Your task to perform on an android device: turn on priority inbox in the gmail app Image 0: 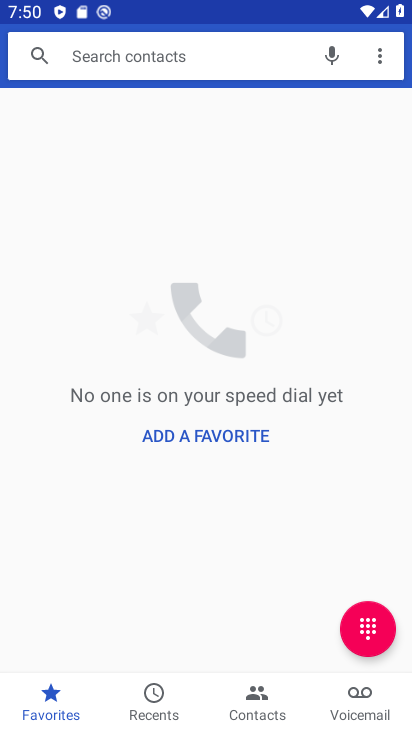
Step 0: press home button
Your task to perform on an android device: turn on priority inbox in the gmail app Image 1: 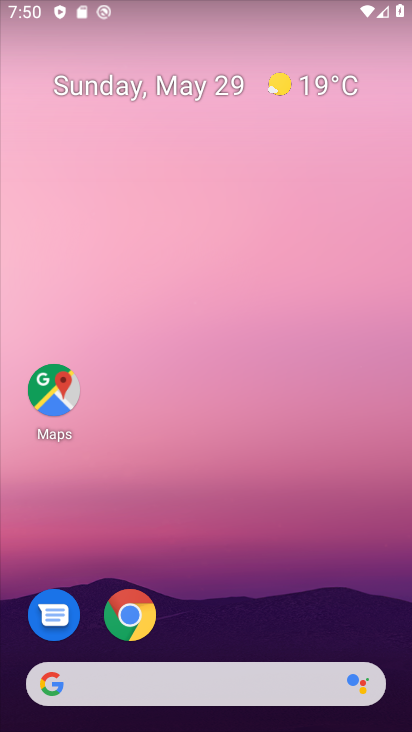
Step 1: drag from (112, 724) to (154, 67)
Your task to perform on an android device: turn on priority inbox in the gmail app Image 2: 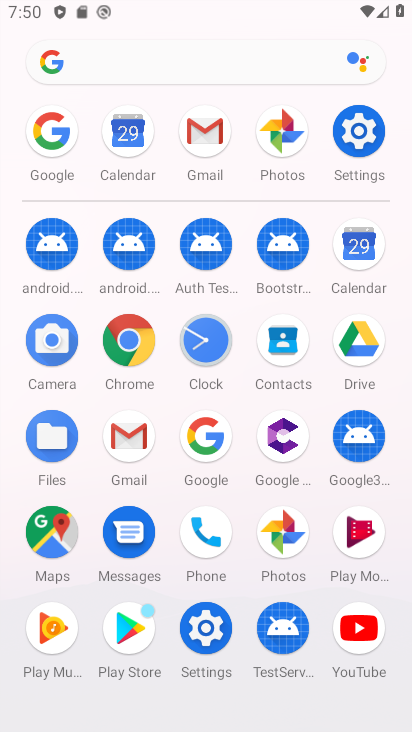
Step 2: click (131, 444)
Your task to perform on an android device: turn on priority inbox in the gmail app Image 3: 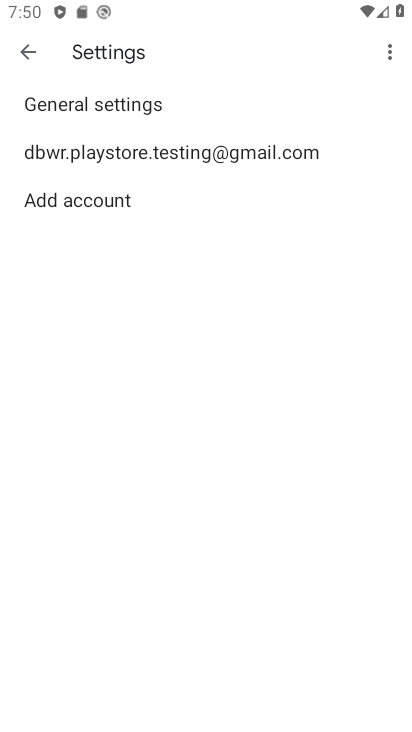
Step 3: click (82, 162)
Your task to perform on an android device: turn on priority inbox in the gmail app Image 4: 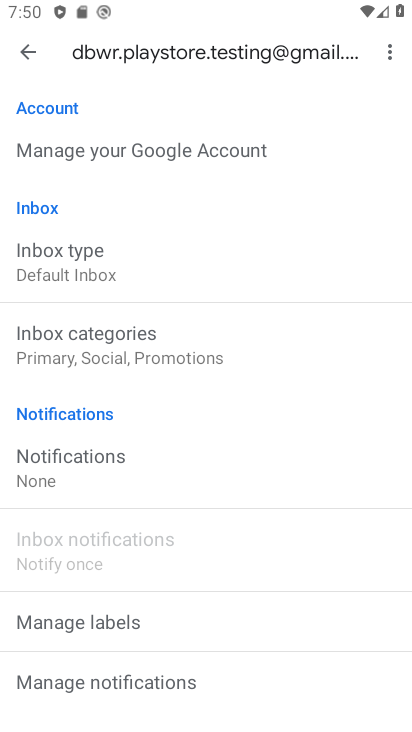
Step 4: click (116, 283)
Your task to perform on an android device: turn on priority inbox in the gmail app Image 5: 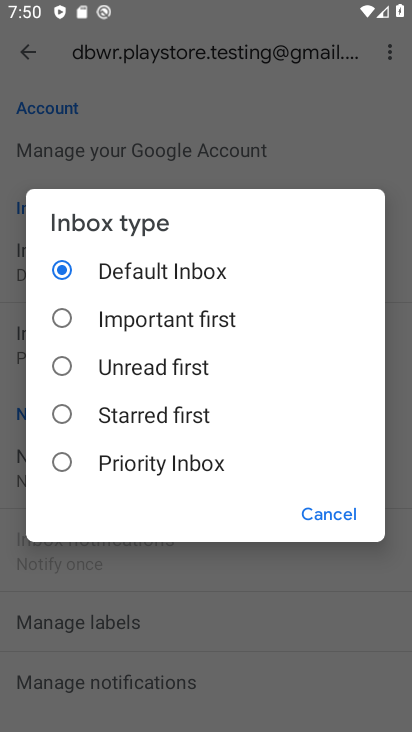
Step 5: click (112, 470)
Your task to perform on an android device: turn on priority inbox in the gmail app Image 6: 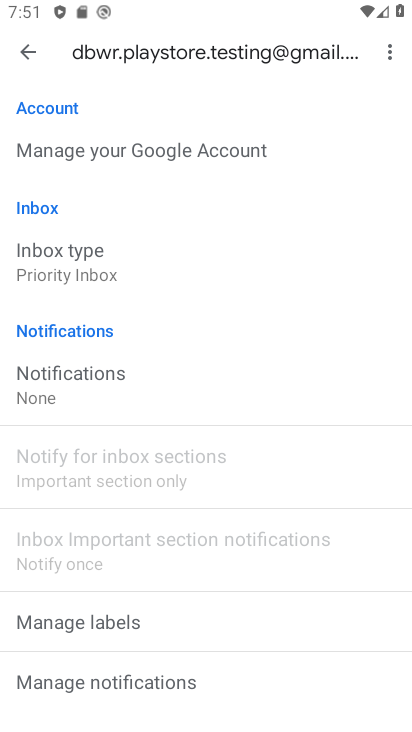
Step 6: task complete